Your task to perform on an android device: Go to Google Image 0: 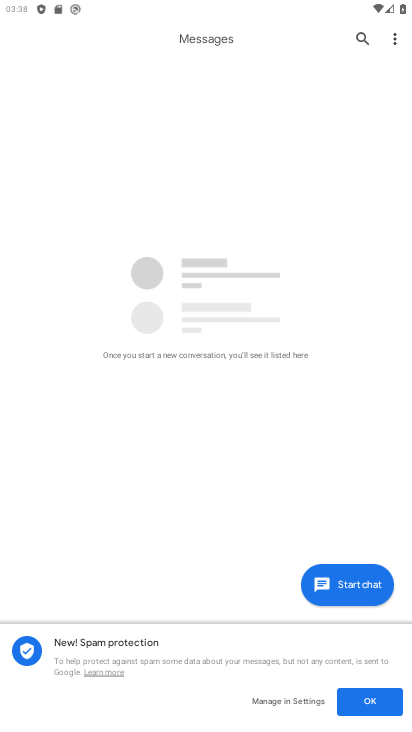
Step 0: press home button
Your task to perform on an android device: Go to Google Image 1: 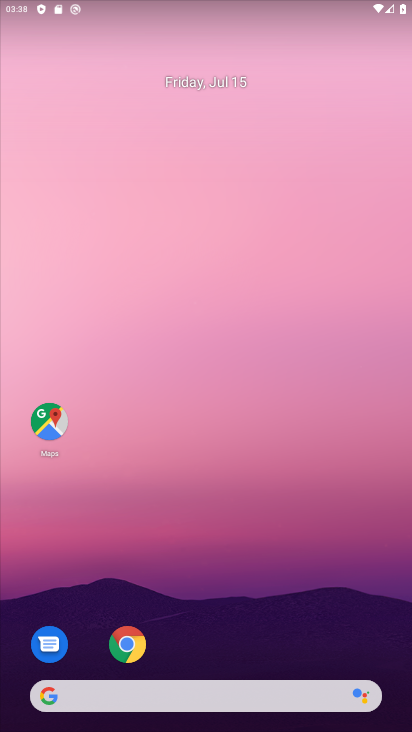
Step 1: drag from (207, 625) to (183, 64)
Your task to perform on an android device: Go to Google Image 2: 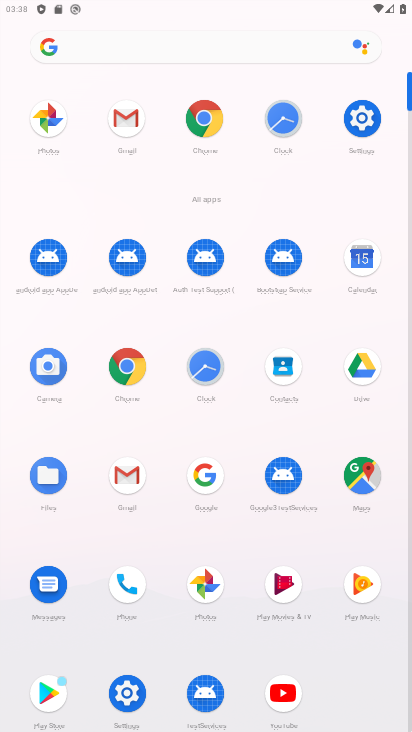
Step 2: click (195, 483)
Your task to perform on an android device: Go to Google Image 3: 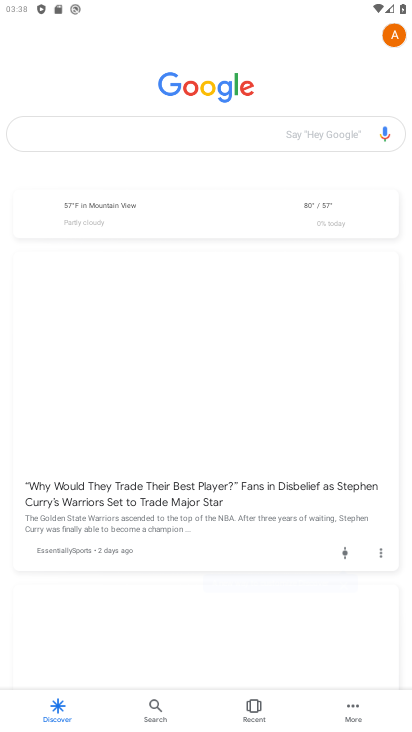
Step 3: task complete